Your task to perform on an android device: turn on the 12-hour format for clock Image 0: 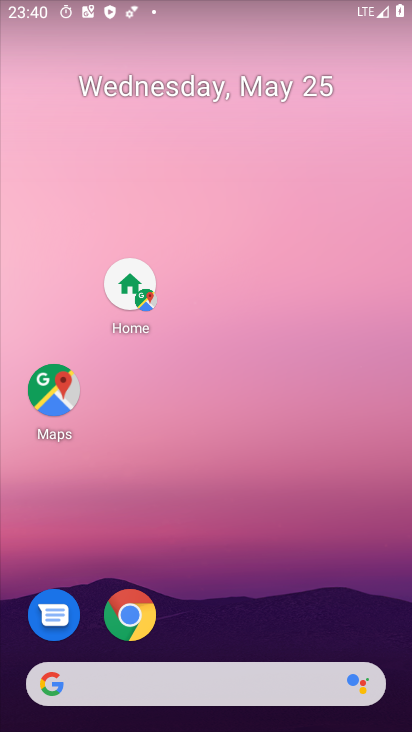
Step 0: drag from (262, 635) to (254, 123)
Your task to perform on an android device: turn on the 12-hour format for clock Image 1: 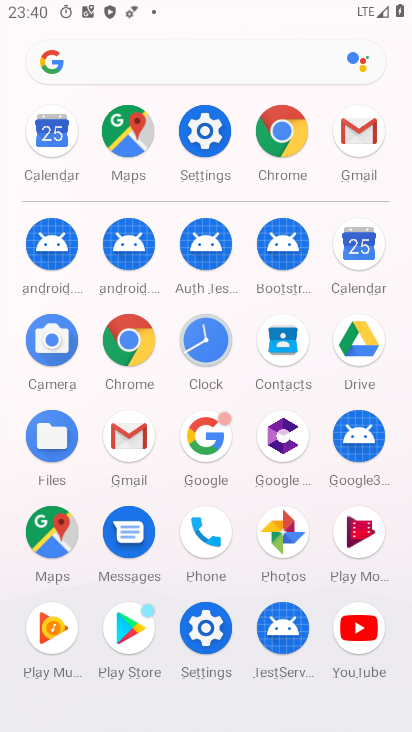
Step 1: click (198, 128)
Your task to perform on an android device: turn on the 12-hour format for clock Image 2: 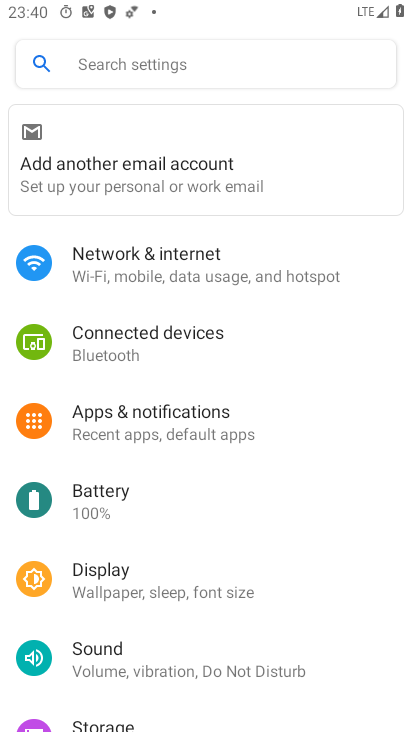
Step 2: drag from (323, 494) to (319, 87)
Your task to perform on an android device: turn on the 12-hour format for clock Image 3: 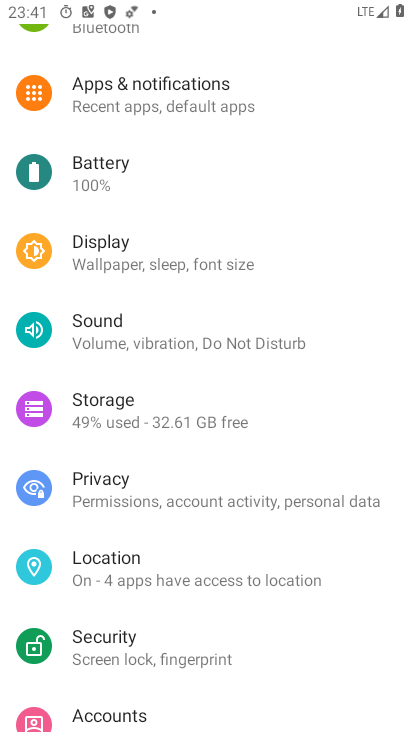
Step 3: drag from (319, 529) to (316, 93)
Your task to perform on an android device: turn on the 12-hour format for clock Image 4: 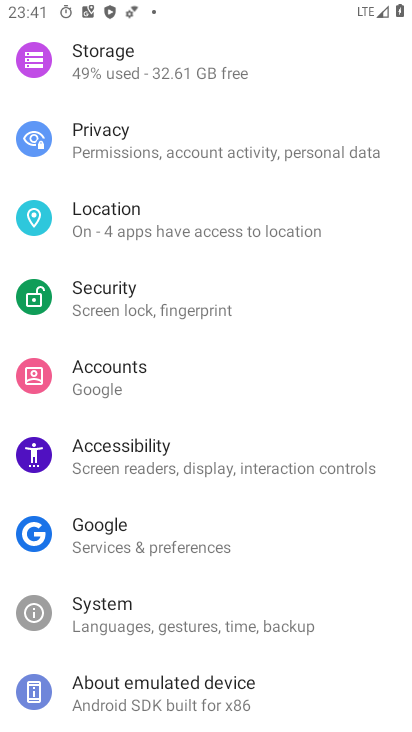
Step 4: click (172, 613)
Your task to perform on an android device: turn on the 12-hour format for clock Image 5: 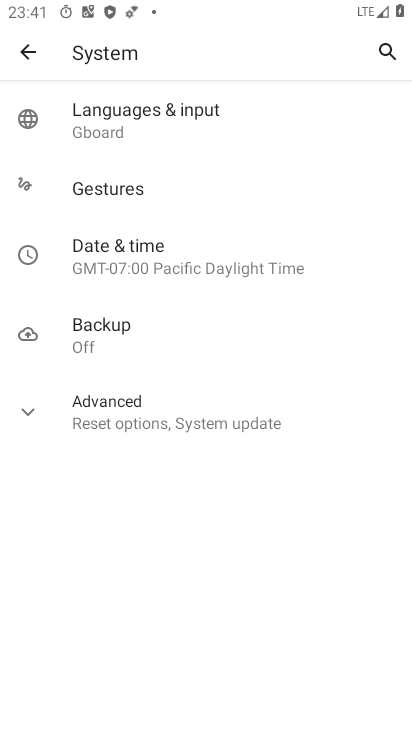
Step 5: click (132, 267)
Your task to perform on an android device: turn on the 12-hour format for clock Image 6: 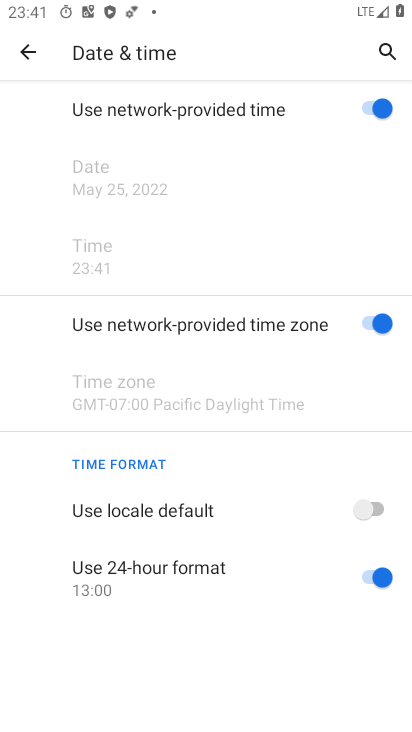
Step 6: task complete